Your task to perform on an android device: Turn off the flashlight Image 0: 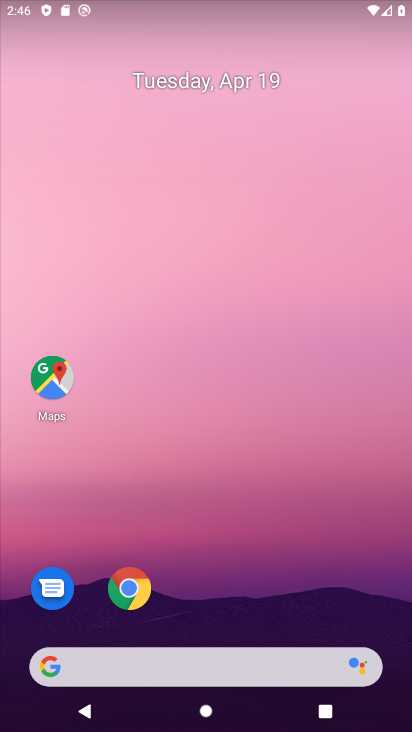
Step 0: drag from (208, 683) to (359, 141)
Your task to perform on an android device: Turn off the flashlight Image 1: 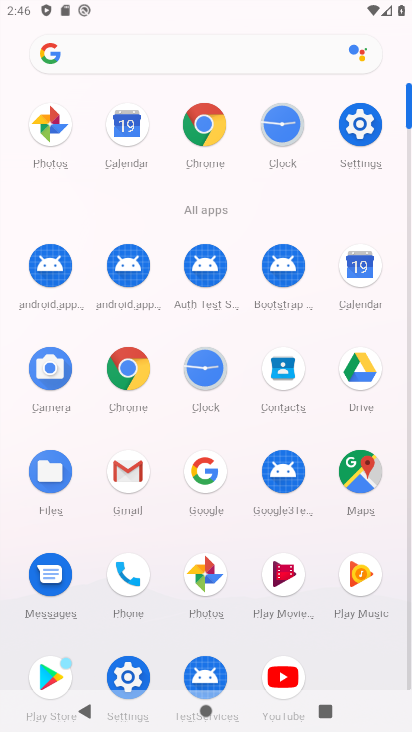
Step 1: click (370, 117)
Your task to perform on an android device: Turn off the flashlight Image 2: 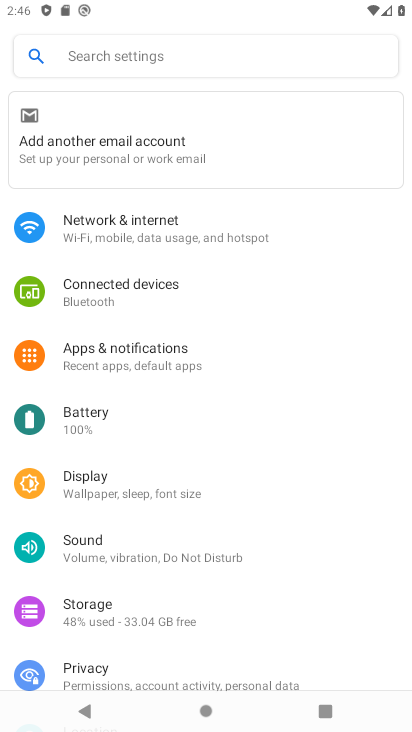
Step 2: click (116, 55)
Your task to perform on an android device: Turn off the flashlight Image 3: 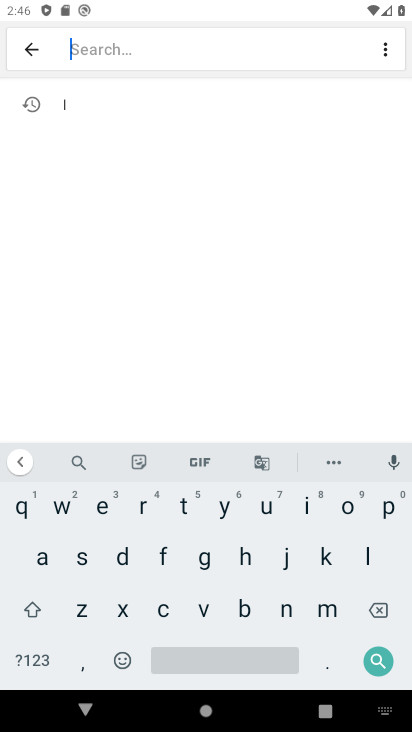
Step 3: click (165, 553)
Your task to perform on an android device: Turn off the flashlight Image 4: 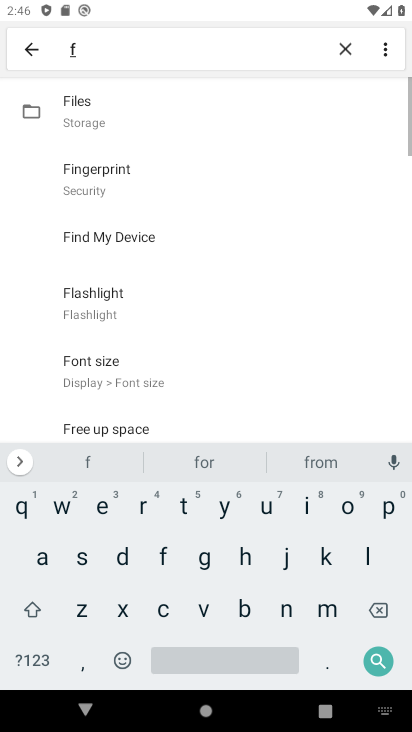
Step 4: click (371, 559)
Your task to perform on an android device: Turn off the flashlight Image 5: 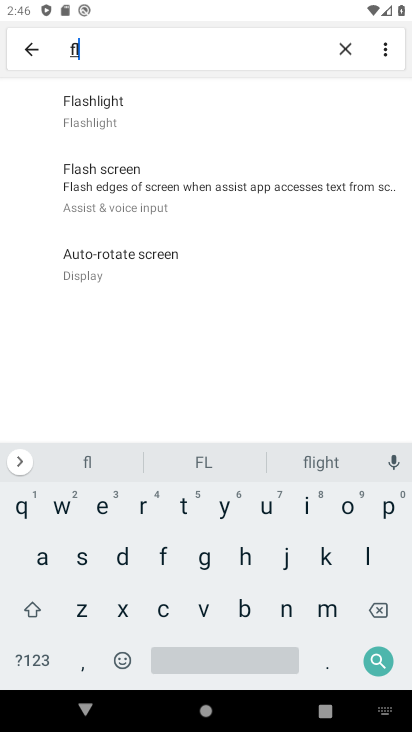
Step 5: click (145, 115)
Your task to perform on an android device: Turn off the flashlight Image 6: 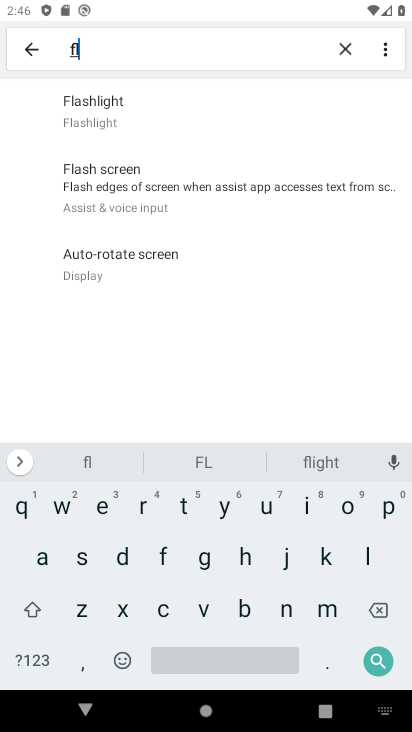
Step 6: task complete